Your task to perform on an android device: turn off smart reply in the gmail app Image 0: 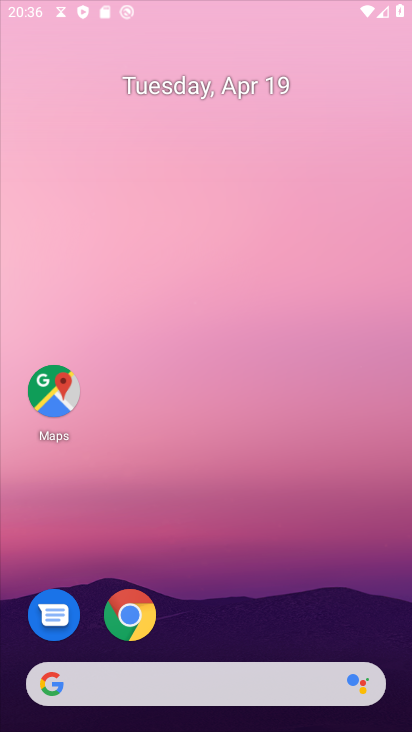
Step 0: drag from (348, 528) to (346, 26)
Your task to perform on an android device: turn off smart reply in the gmail app Image 1: 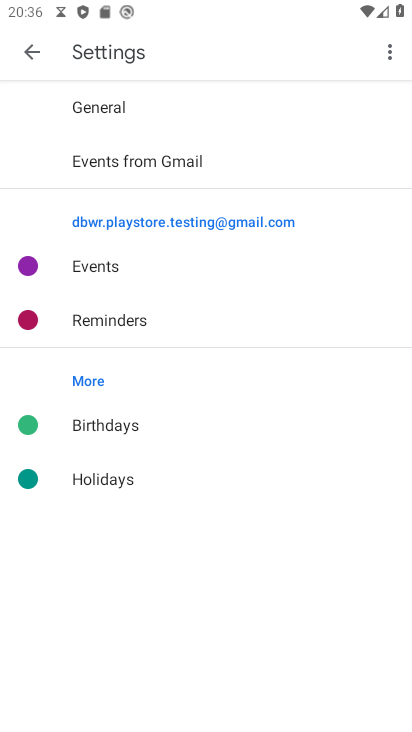
Step 1: press back button
Your task to perform on an android device: turn off smart reply in the gmail app Image 2: 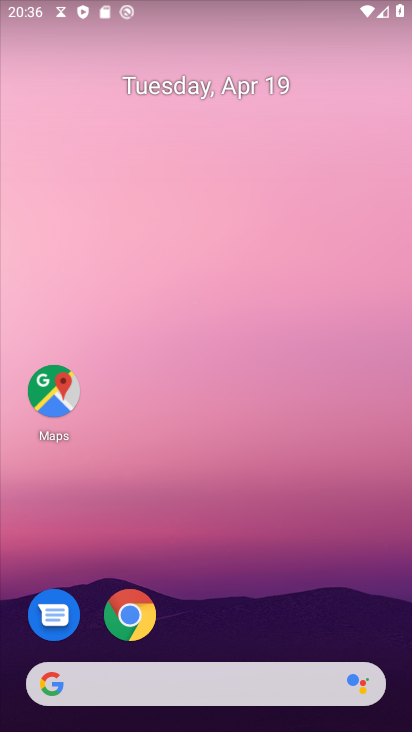
Step 2: drag from (303, 599) to (269, 10)
Your task to perform on an android device: turn off smart reply in the gmail app Image 3: 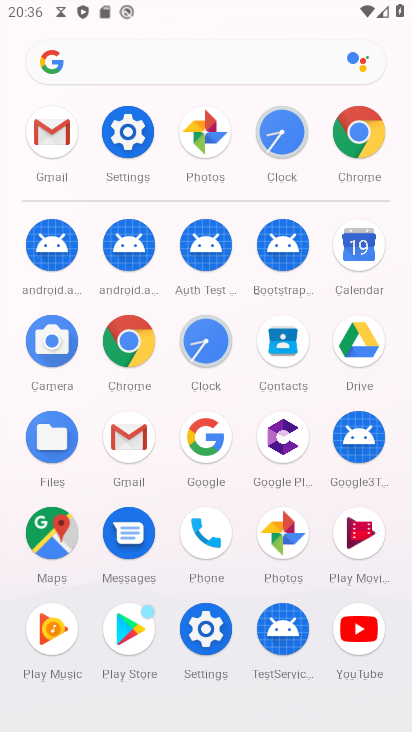
Step 3: drag from (11, 531) to (11, 212)
Your task to perform on an android device: turn off smart reply in the gmail app Image 4: 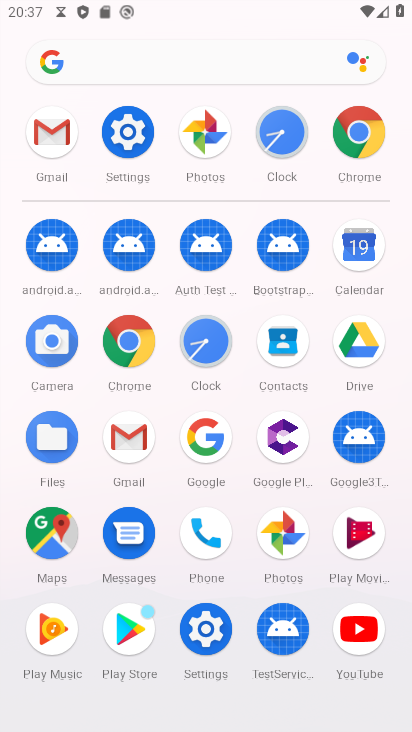
Step 4: click (131, 433)
Your task to perform on an android device: turn off smart reply in the gmail app Image 5: 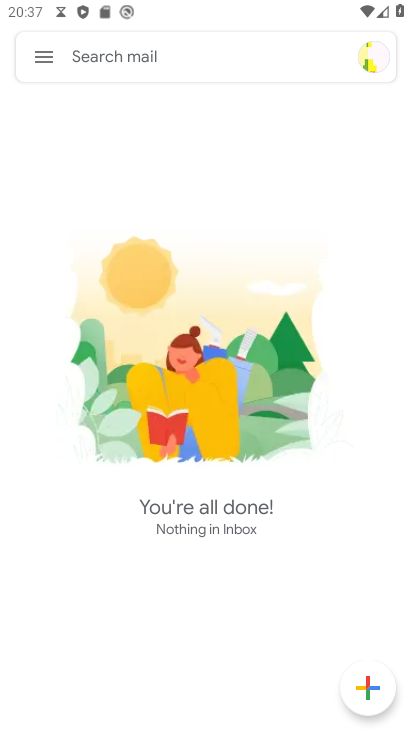
Step 5: click (52, 62)
Your task to perform on an android device: turn off smart reply in the gmail app Image 6: 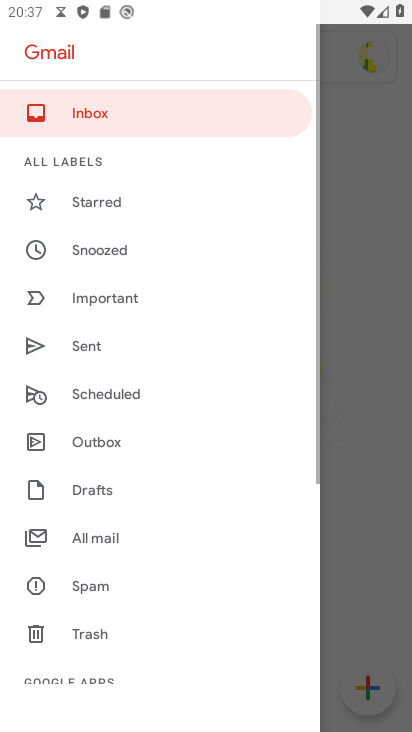
Step 6: drag from (169, 666) to (188, 176)
Your task to perform on an android device: turn off smart reply in the gmail app Image 7: 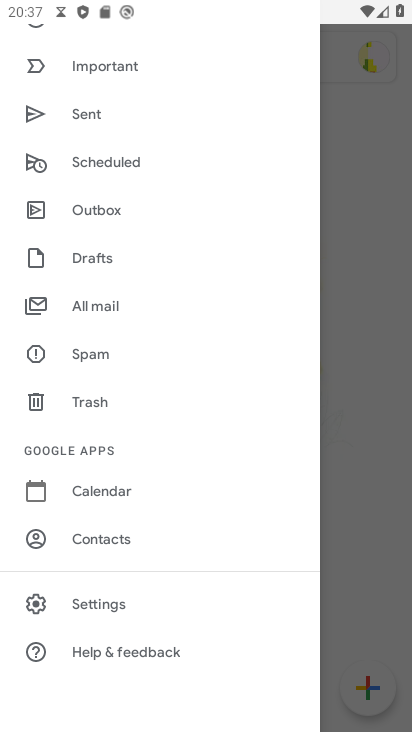
Step 7: click (101, 598)
Your task to perform on an android device: turn off smart reply in the gmail app Image 8: 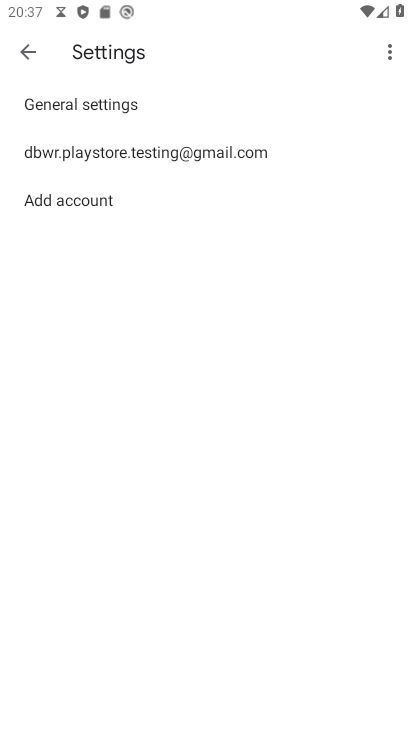
Step 8: click (183, 153)
Your task to perform on an android device: turn off smart reply in the gmail app Image 9: 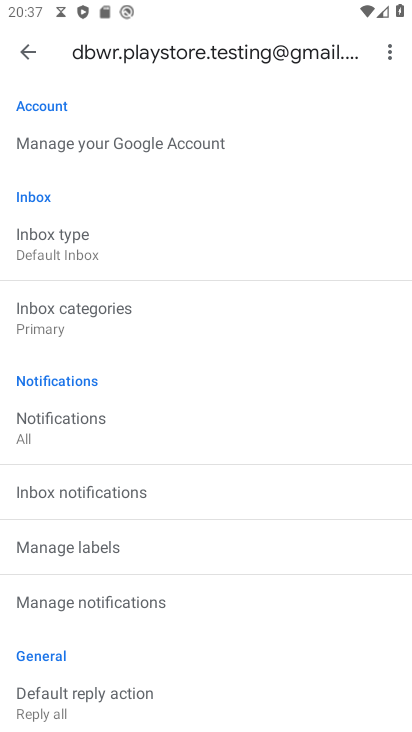
Step 9: drag from (142, 589) to (159, 201)
Your task to perform on an android device: turn off smart reply in the gmail app Image 10: 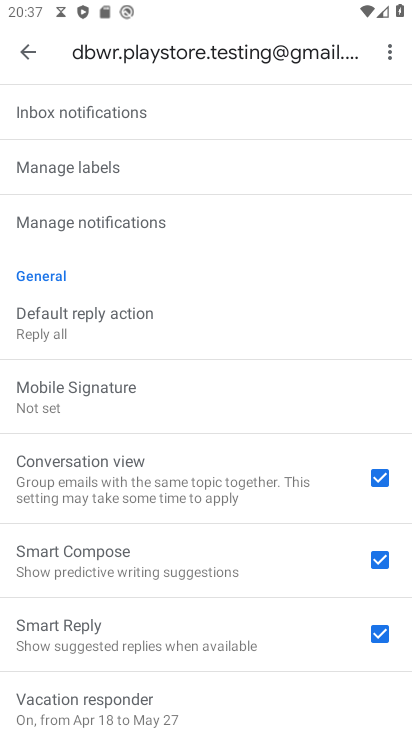
Step 10: drag from (219, 117) to (184, 399)
Your task to perform on an android device: turn off smart reply in the gmail app Image 11: 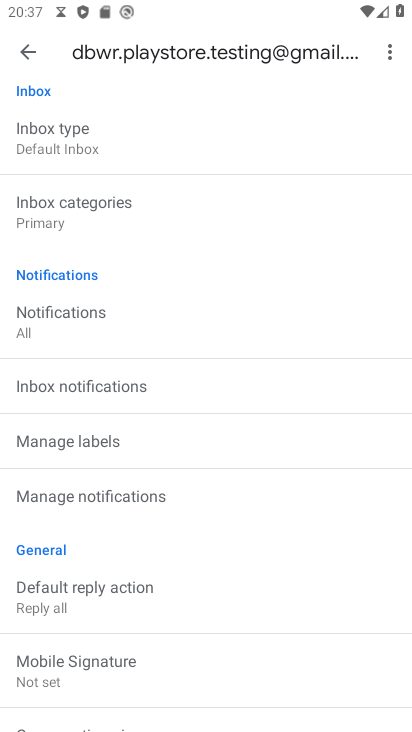
Step 11: drag from (248, 541) to (282, 269)
Your task to perform on an android device: turn off smart reply in the gmail app Image 12: 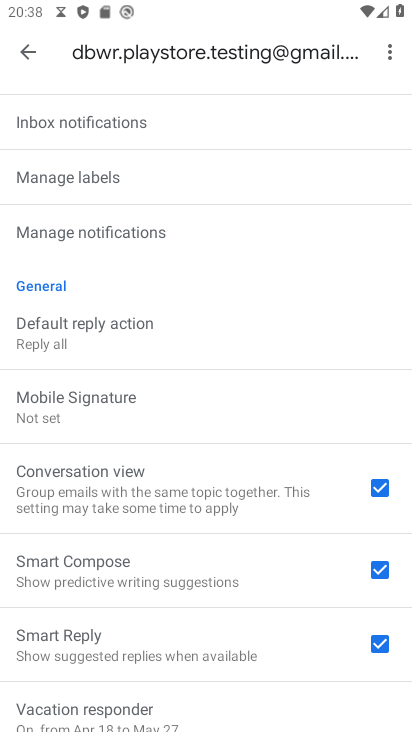
Step 12: click (376, 638)
Your task to perform on an android device: turn off smart reply in the gmail app Image 13: 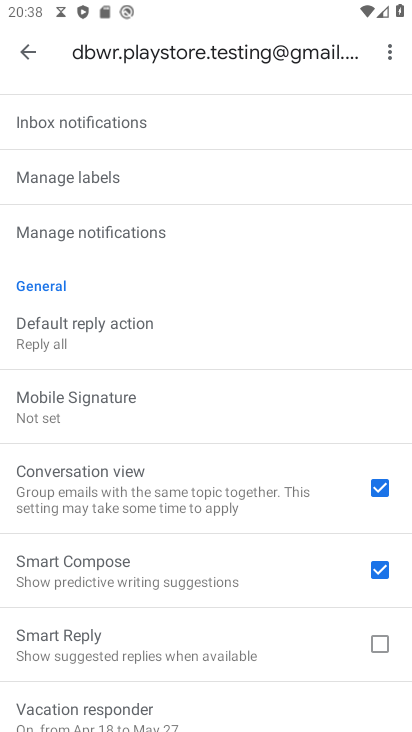
Step 13: task complete